Your task to perform on an android device: open wifi settings Image 0: 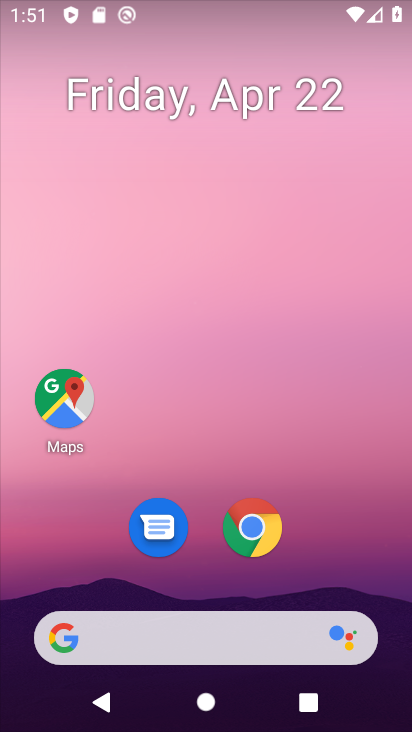
Step 0: drag from (184, 121) to (173, 431)
Your task to perform on an android device: open wifi settings Image 1: 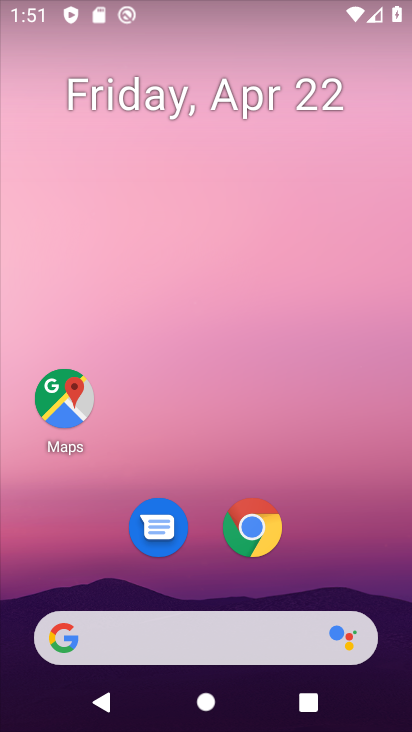
Step 1: drag from (322, 7) to (328, 400)
Your task to perform on an android device: open wifi settings Image 2: 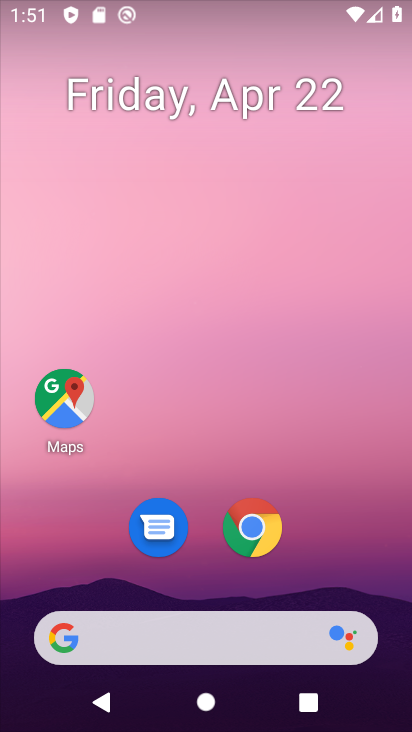
Step 2: drag from (288, 13) to (296, 296)
Your task to perform on an android device: open wifi settings Image 3: 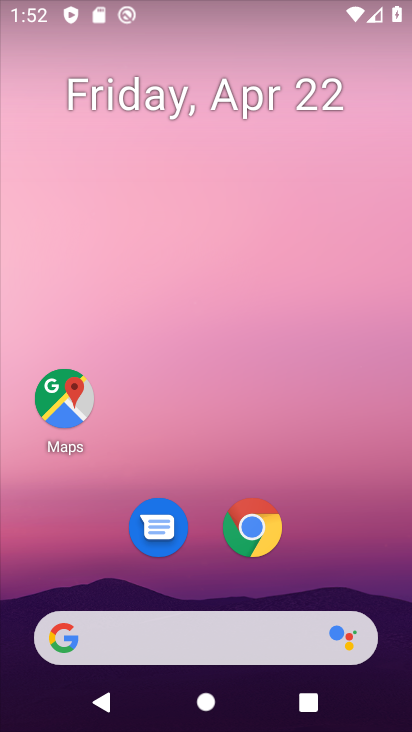
Step 3: drag from (300, 0) to (288, 375)
Your task to perform on an android device: open wifi settings Image 4: 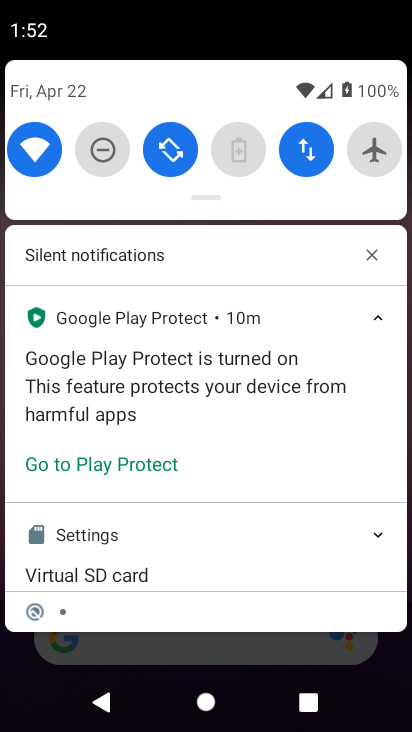
Step 4: drag from (272, 208) to (262, 528)
Your task to perform on an android device: open wifi settings Image 5: 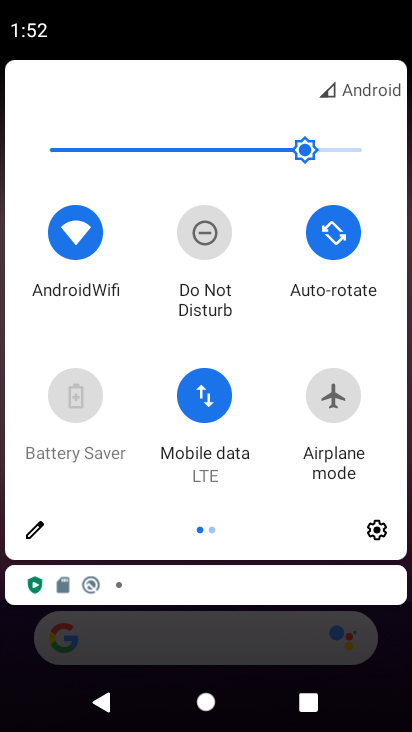
Step 5: click (68, 241)
Your task to perform on an android device: open wifi settings Image 6: 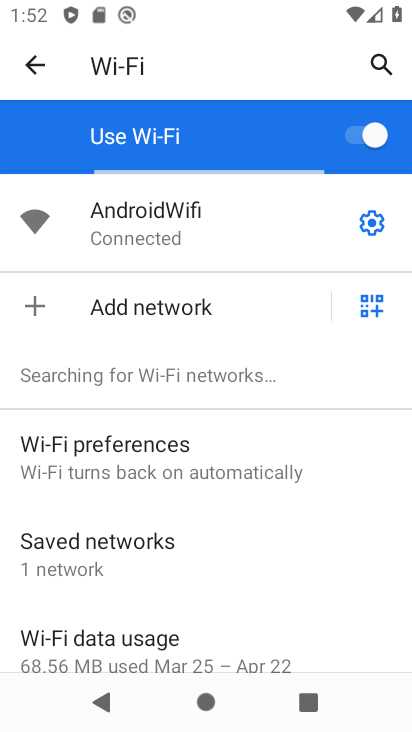
Step 6: task complete